Your task to perform on an android device: turn on javascript in the chrome app Image 0: 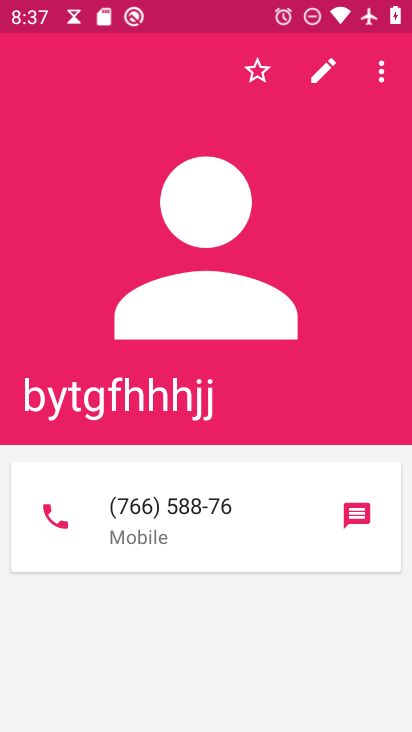
Step 0: press home button
Your task to perform on an android device: turn on javascript in the chrome app Image 1: 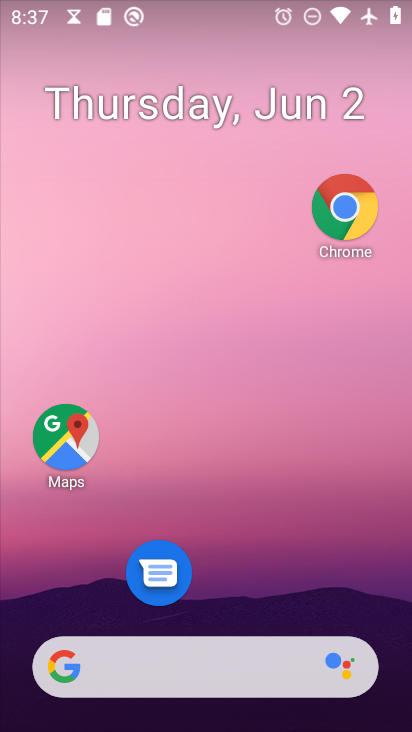
Step 1: click (347, 220)
Your task to perform on an android device: turn on javascript in the chrome app Image 2: 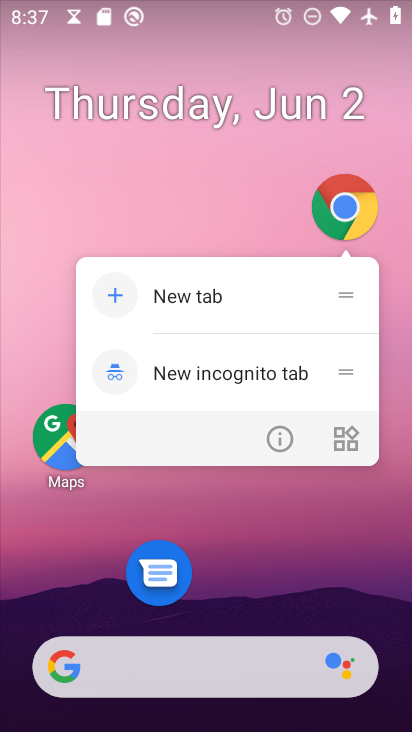
Step 2: click (342, 220)
Your task to perform on an android device: turn on javascript in the chrome app Image 3: 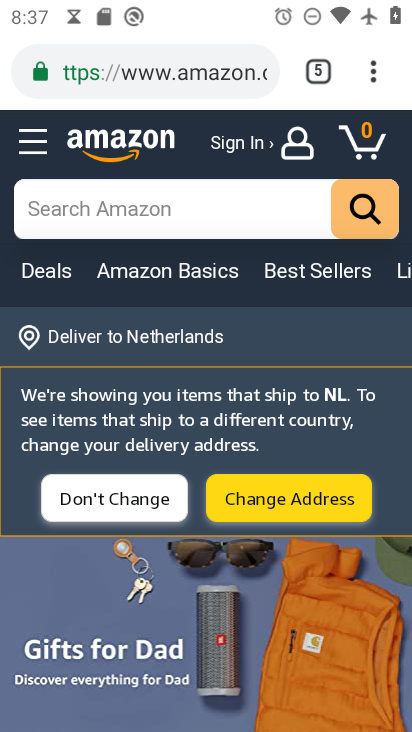
Step 3: drag from (372, 79) to (187, 566)
Your task to perform on an android device: turn on javascript in the chrome app Image 4: 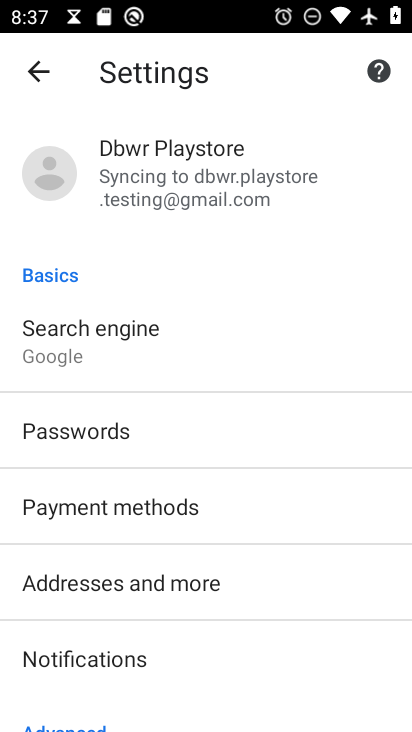
Step 4: drag from (180, 679) to (267, 274)
Your task to perform on an android device: turn on javascript in the chrome app Image 5: 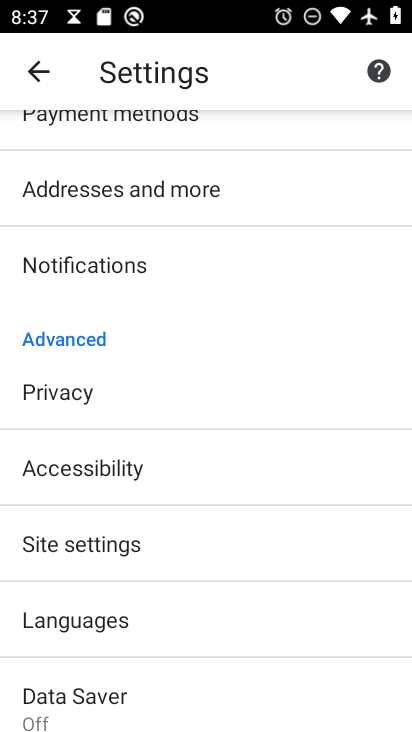
Step 5: click (118, 545)
Your task to perform on an android device: turn on javascript in the chrome app Image 6: 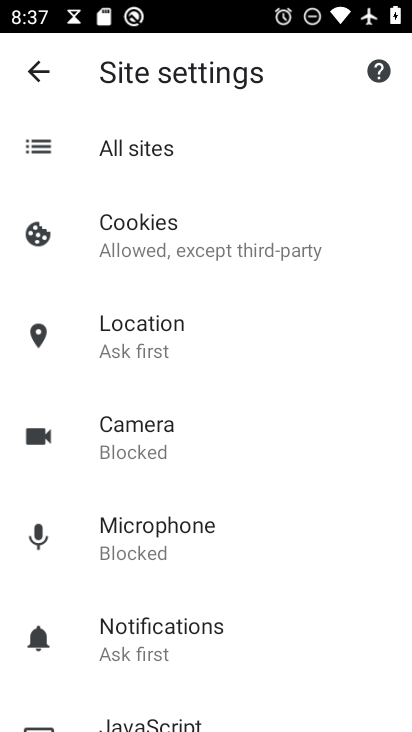
Step 6: drag from (232, 625) to (281, 434)
Your task to perform on an android device: turn on javascript in the chrome app Image 7: 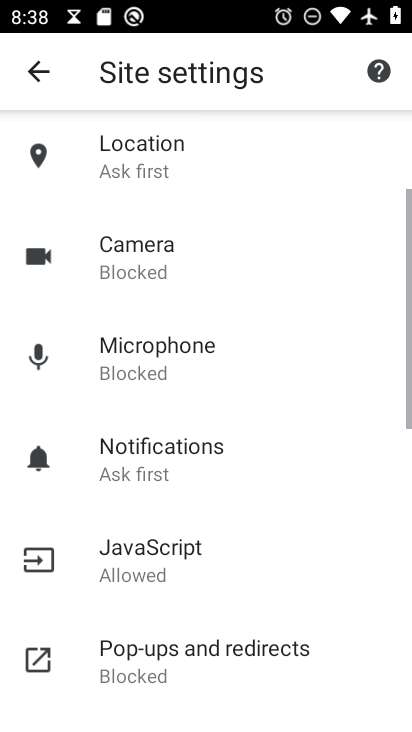
Step 7: click (145, 572)
Your task to perform on an android device: turn on javascript in the chrome app Image 8: 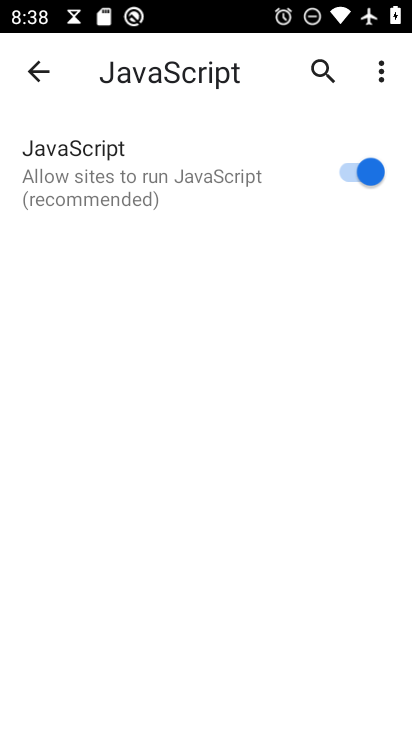
Step 8: task complete